Your task to perform on an android device: toggle notifications settings in the gmail app Image 0: 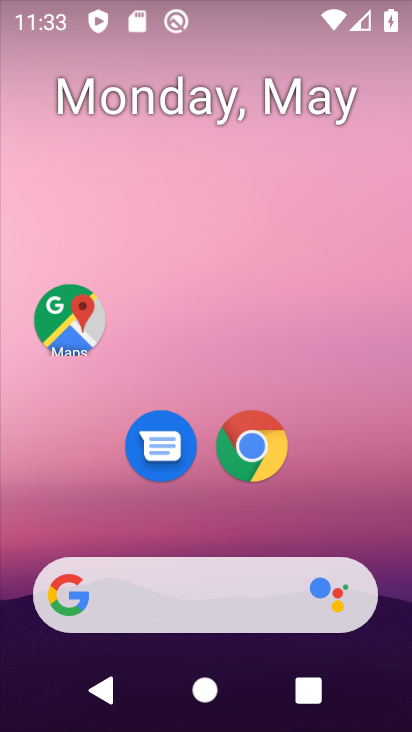
Step 0: drag from (351, 523) to (266, 79)
Your task to perform on an android device: toggle notifications settings in the gmail app Image 1: 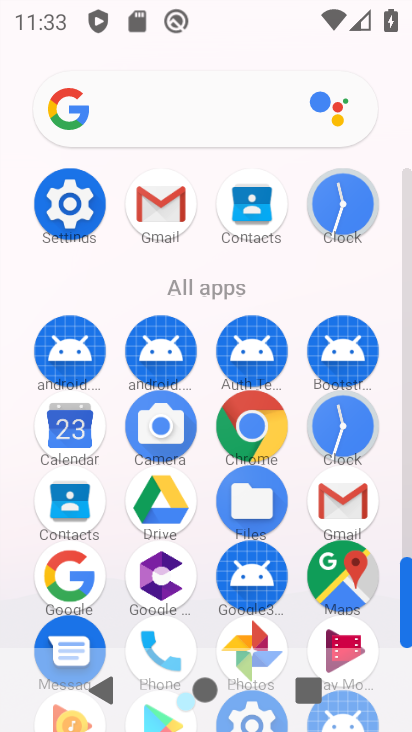
Step 1: click (155, 212)
Your task to perform on an android device: toggle notifications settings in the gmail app Image 2: 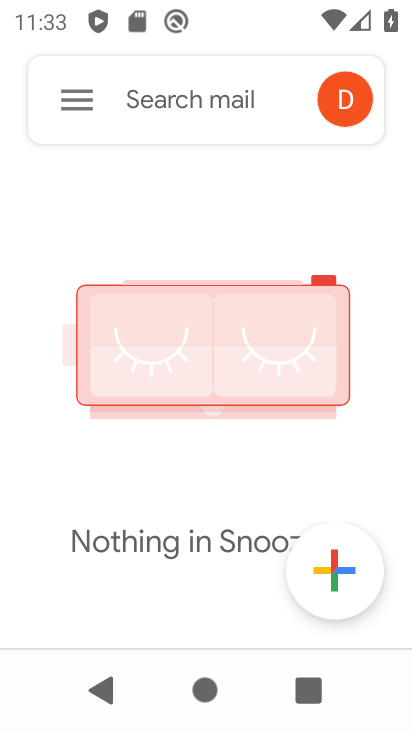
Step 2: click (79, 95)
Your task to perform on an android device: toggle notifications settings in the gmail app Image 3: 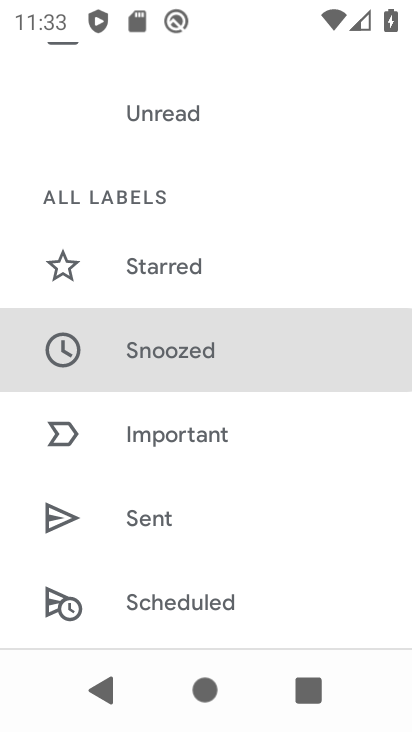
Step 3: drag from (242, 477) to (244, 76)
Your task to perform on an android device: toggle notifications settings in the gmail app Image 4: 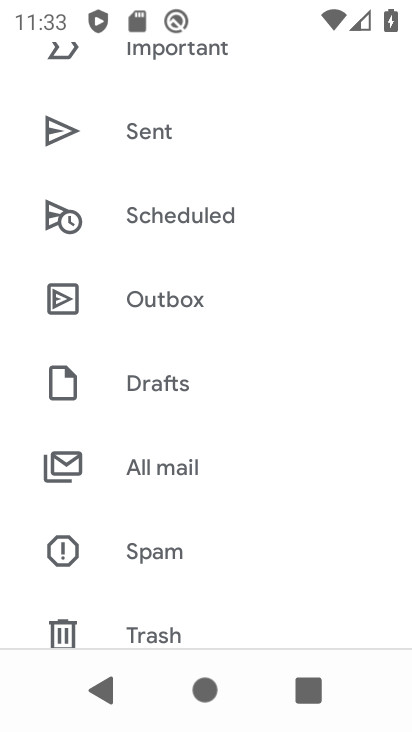
Step 4: drag from (236, 508) to (246, 167)
Your task to perform on an android device: toggle notifications settings in the gmail app Image 5: 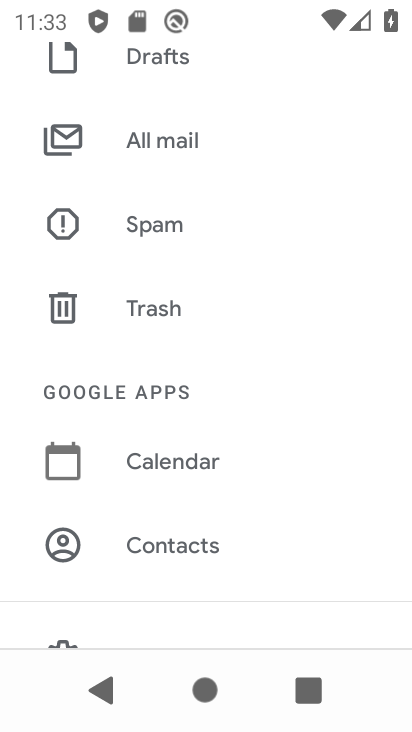
Step 5: drag from (222, 494) to (229, 209)
Your task to perform on an android device: toggle notifications settings in the gmail app Image 6: 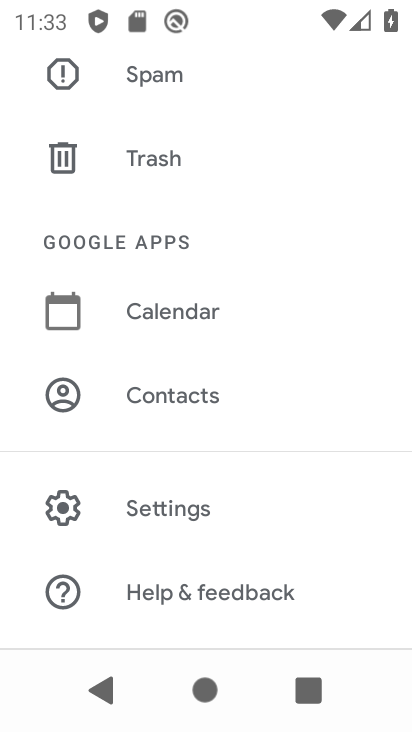
Step 6: click (160, 506)
Your task to perform on an android device: toggle notifications settings in the gmail app Image 7: 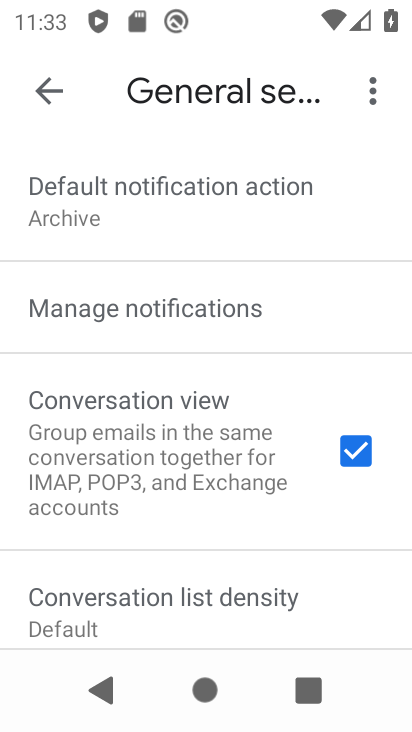
Step 7: click (130, 302)
Your task to perform on an android device: toggle notifications settings in the gmail app Image 8: 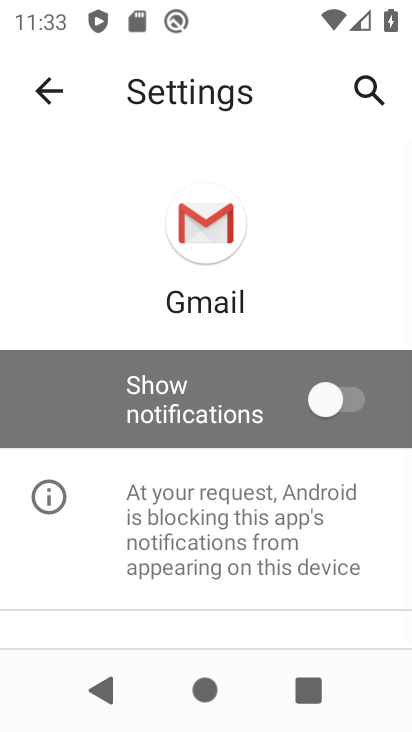
Step 8: click (324, 381)
Your task to perform on an android device: toggle notifications settings in the gmail app Image 9: 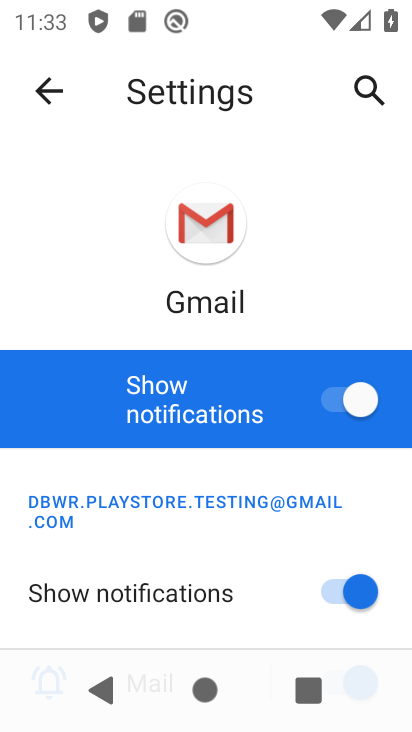
Step 9: task complete